Your task to perform on an android device: turn on sleep mode Image 0: 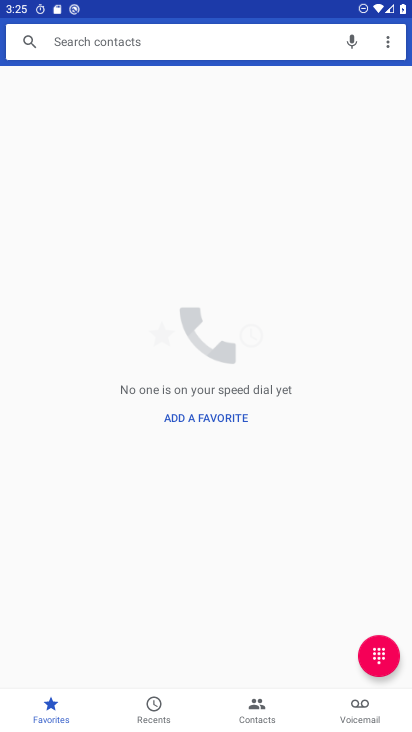
Step 0: press home button
Your task to perform on an android device: turn on sleep mode Image 1: 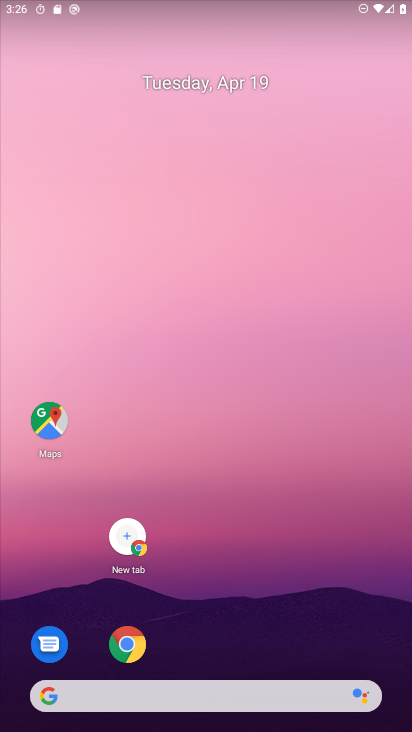
Step 1: drag from (217, 632) to (118, 49)
Your task to perform on an android device: turn on sleep mode Image 2: 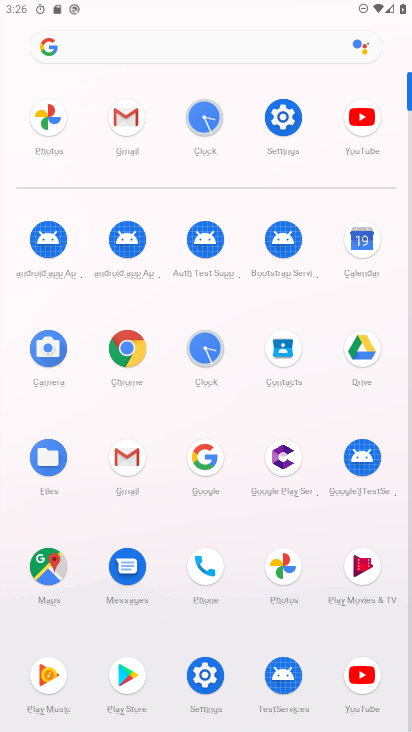
Step 2: click (289, 117)
Your task to perform on an android device: turn on sleep mode Image 3: 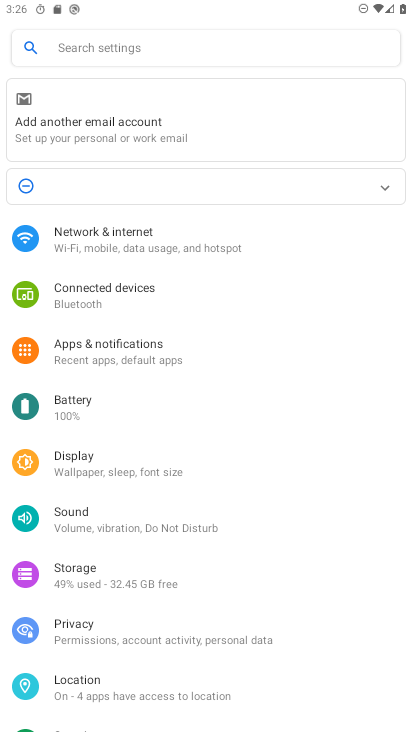
Step 3: click (140, 469)
Your task to perform on an android device: turn on sleep mode Image 4: 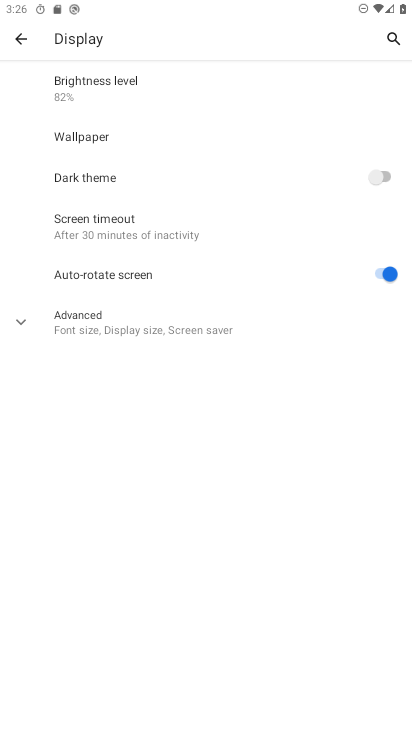
Step 4: drag from (143, 550) to (143, 343)
Your task to perform on an android device: turn on sleep mode Image 5: 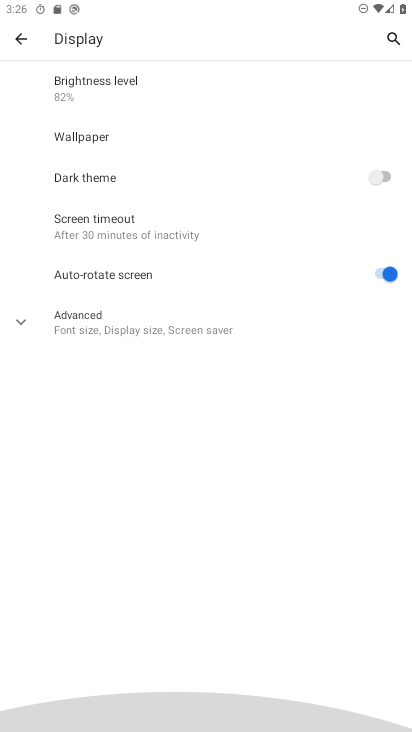
Step 5: click (143, 329)
Your task to perform on an android device: turn on sleep mode Image 6: 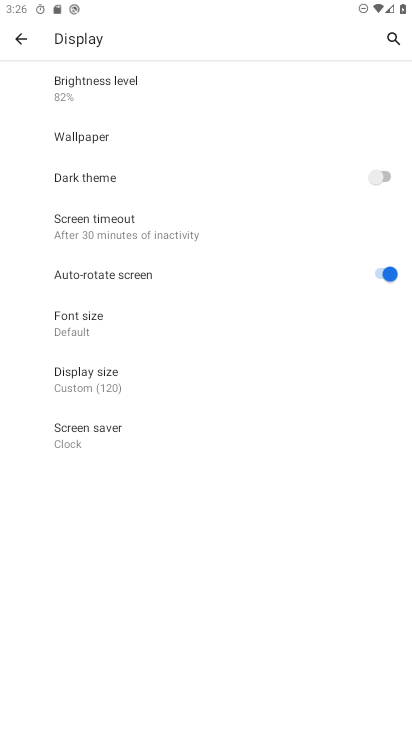
Step 6: task complete